Your task to perform on an android device: Go to Amazon Image 0: 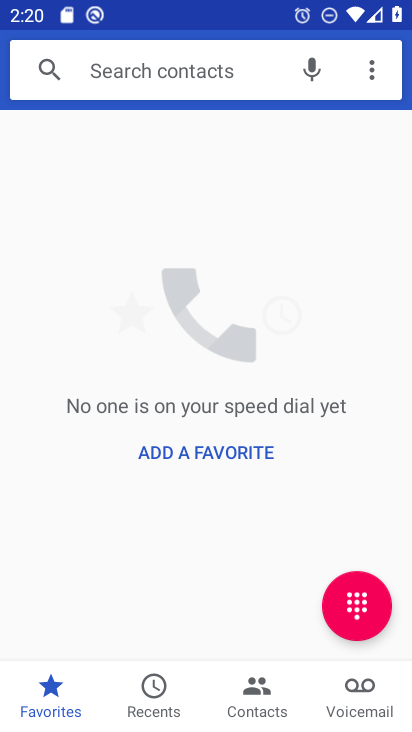
Step 0: press home button
Your task to perform on an android device: Go to Amazon Image 1: 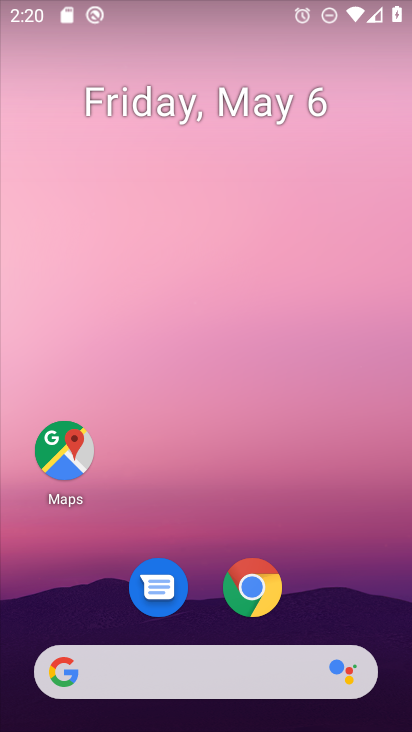
Step 1: click (260, 583)
Your task to perform on an android device: Go to Amazon Image 2: 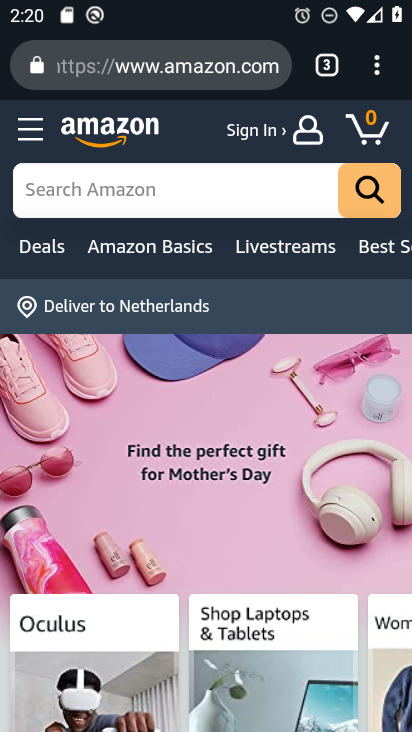
Step 2: task complete